Your task to perform on an android device: What is the news today? Image 0: 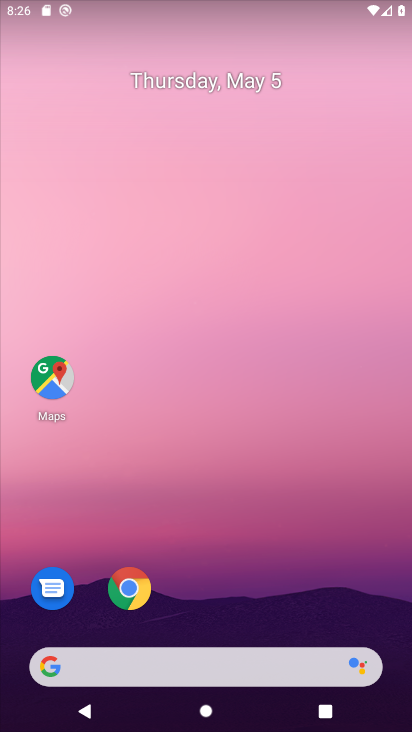
Step 0: press home button
Your task to perform on an android device: What is the news today? Image 1: 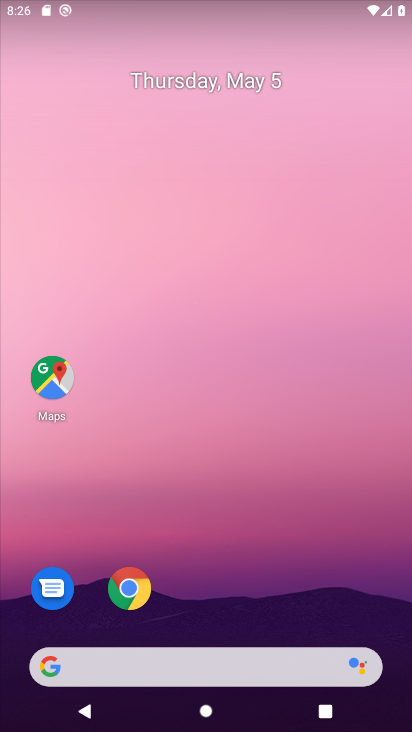
Step 1: task complete